Your task to perform on an android device: set an alarm Image 0: 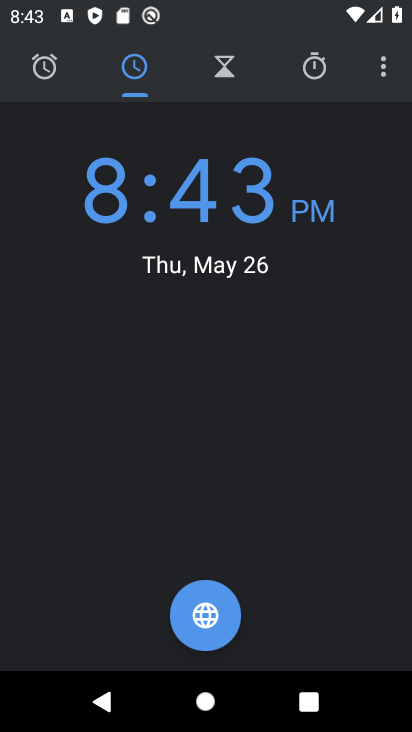
Step 0: click (42, 68)
Your task to perform on an android device: set an alarm Image 1: 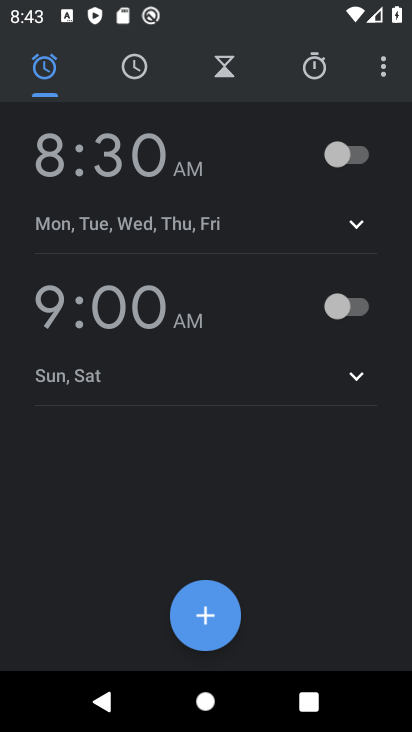
Step 1: click (209, 609)
Your task to perform on an android device: set an alarm Image 2: 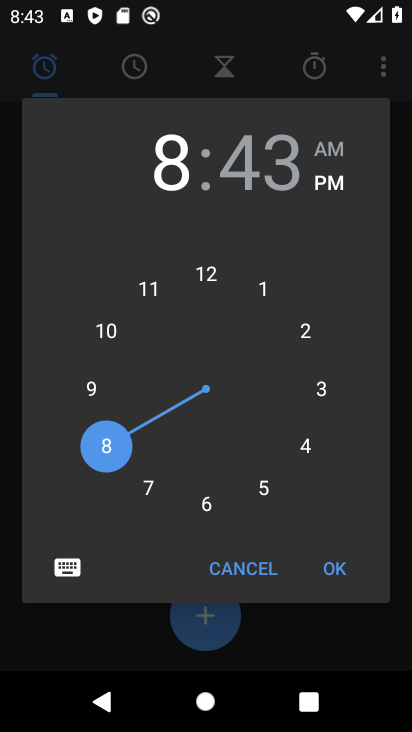
Step 2: click (243, 189)
Your task to perform on an android device: set an alarm Image 3: 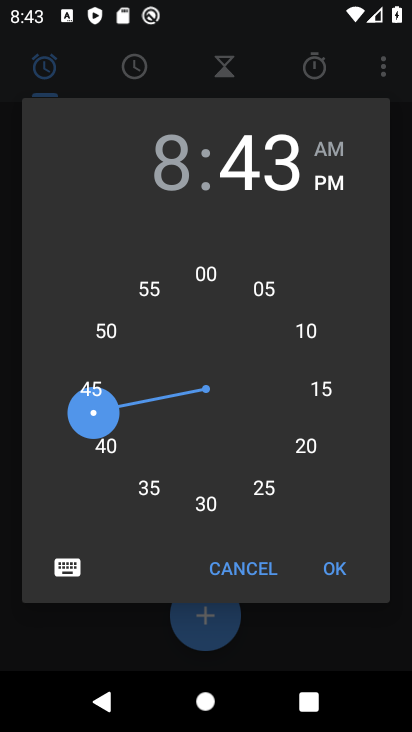
Step 3: click (209, 275)
Your task to perform on an android device: set an alarm Image 4: 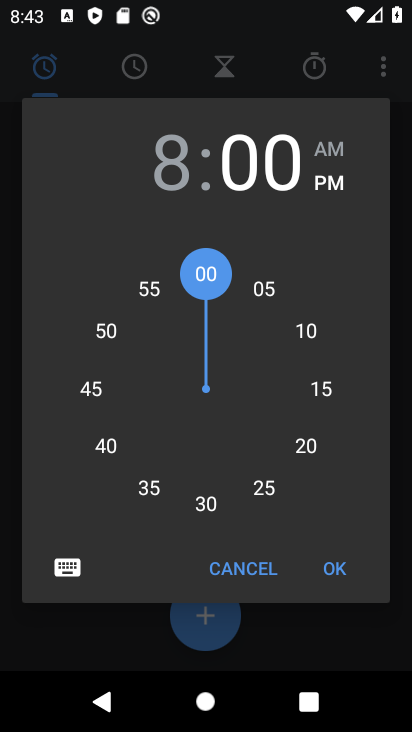
Step 4: click (338, 562)
Your task to perform on an android device: set an alarm Image 5: 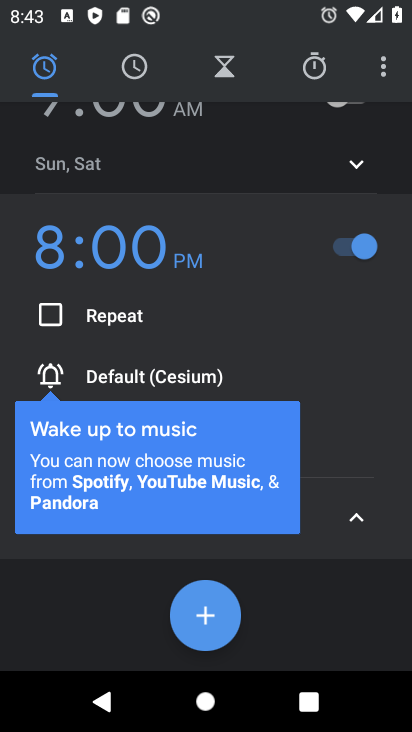
Step 5: task complete